Your task to perform on an android device: show emergency info Image 0: 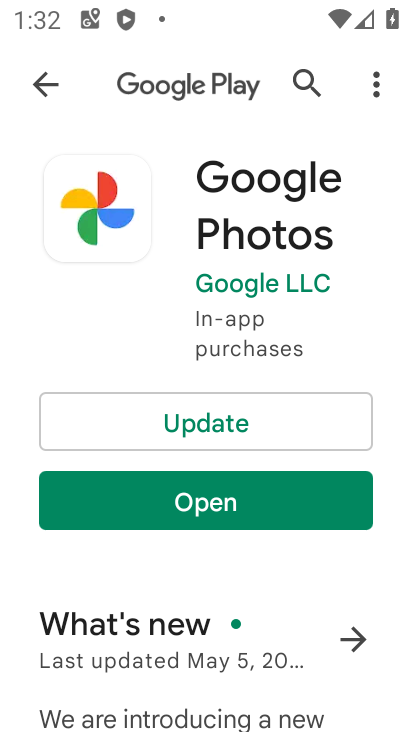
Step 0: press home button
Your task to perform on an android device: show emergency info Image 1: 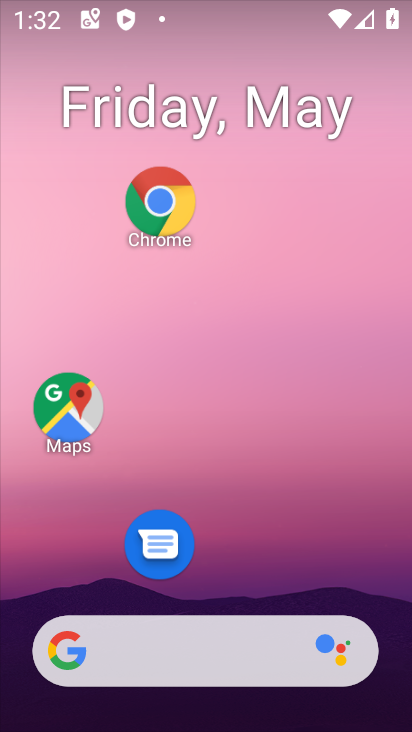
Step 1: drag from (286, 561) to (235, 268)
Your task to perform on an android device: show emergency info Image 2: 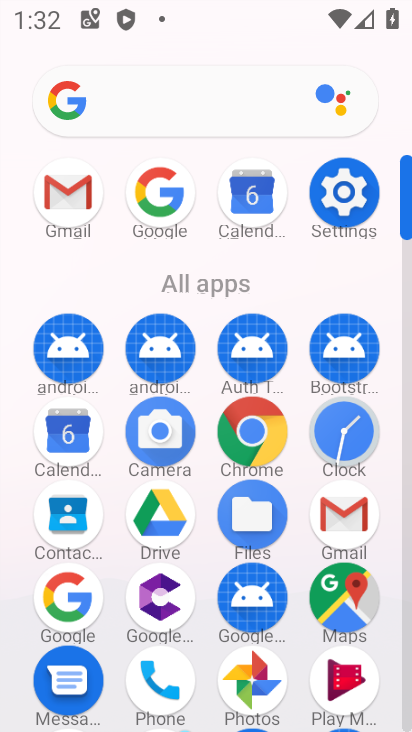
Step 2: click (337, 201)
Your task to perform on an android device: show emergency info Image 3: 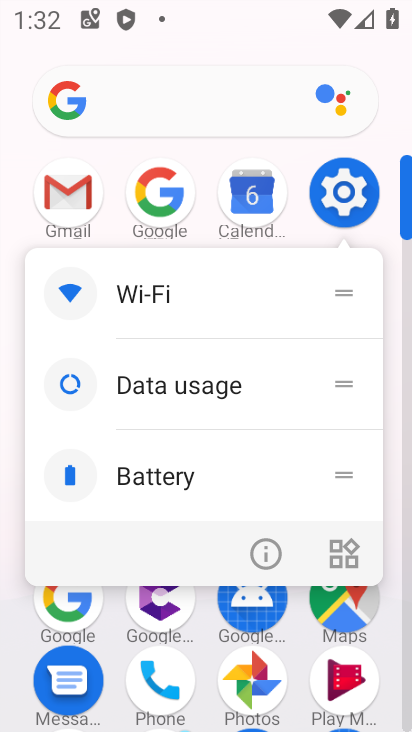
Step 3: click (273, 548)
Your task to perform on an android device: show emergency info Image 4: 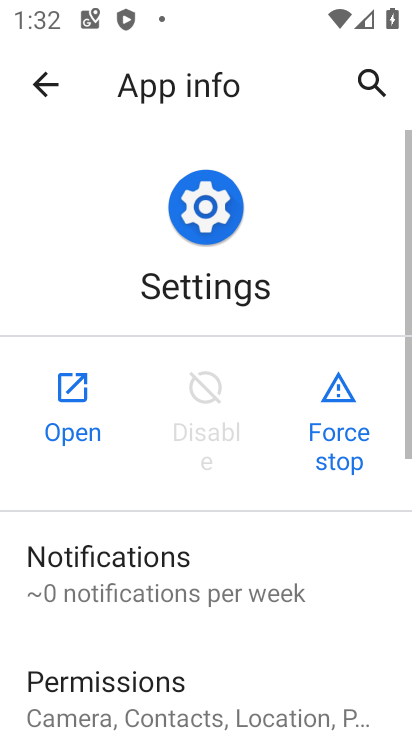
Step 4: click (94, 414)
Your task to perform on an android device: show emergency info Image 5: 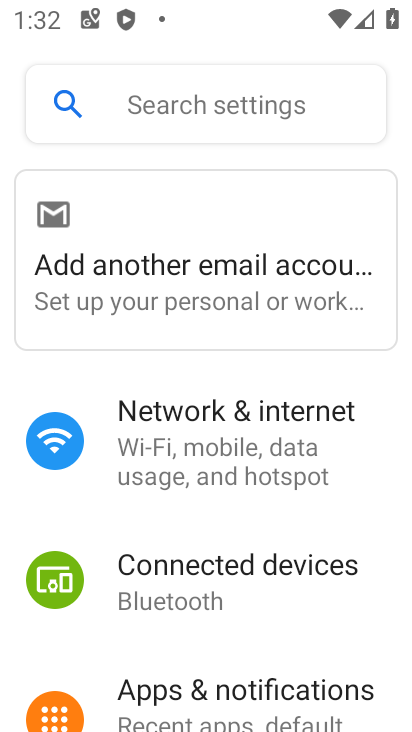
Step 5: drag from (223, 545) to (196, 156)
Your task to perform on an android device: show emergency info Image 6: 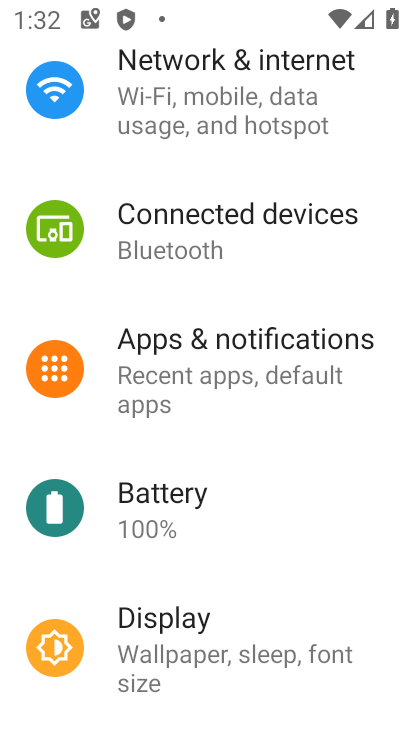
Step 6: drag from (278, 653) to (223, 360)
Your task to perform on an android device: show emergency info Image 7: 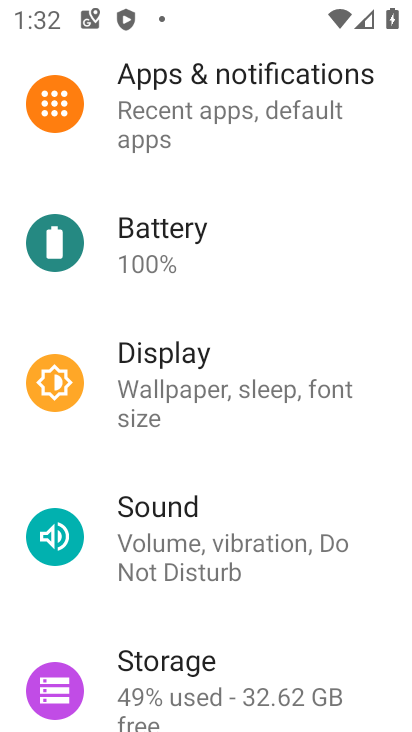
Step 7: drag from (268, 633) to (249, 333)
Your task to perform on an android device: show emergency info Image 8: 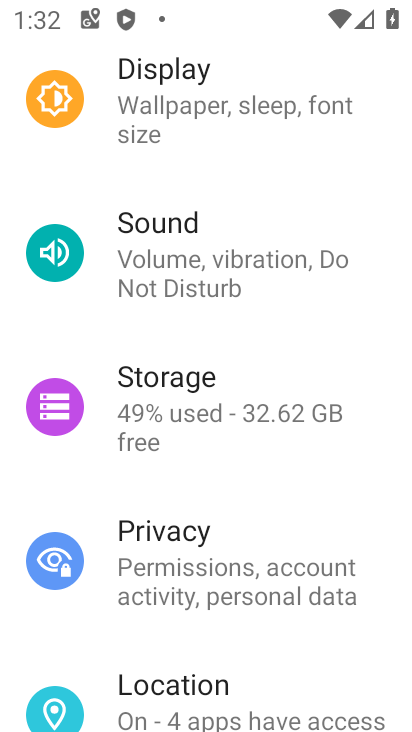
Step 8: drag from (246, 635) to (239, 328)
Your task to perform on an android device: show emergency info Image 9: 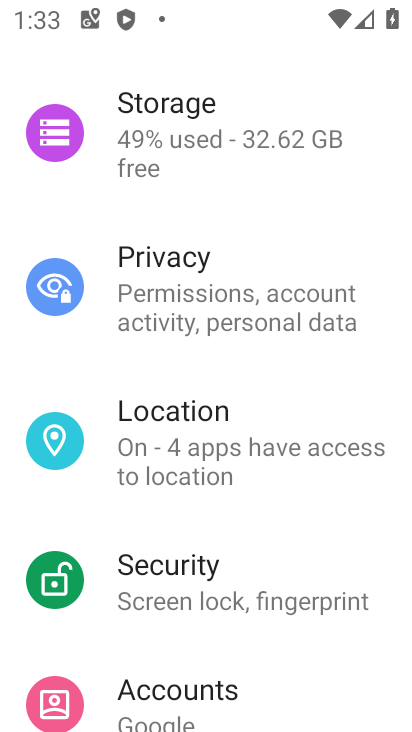
Step 9: drag from (235, 593) to (227, 253)
Your task to perform on an android device: show emergency info Image 10: 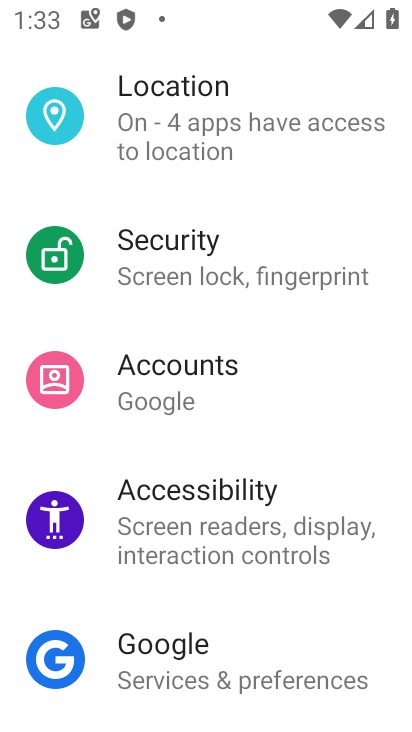
Step 10: drag from (228, 635) to (230, 283)
Your task to perform on an android device: show emergency info Image 11: 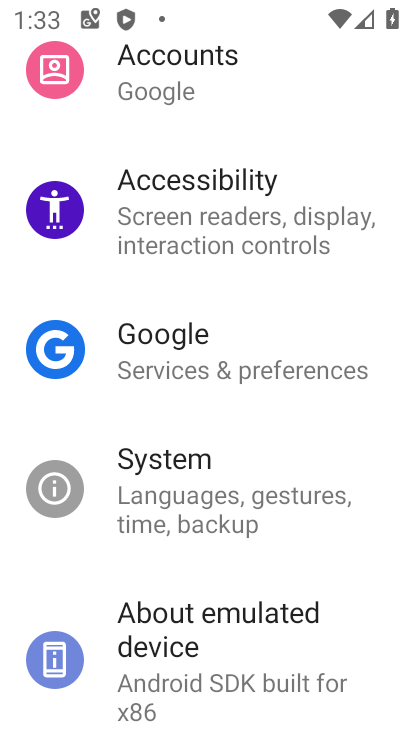
Step 11: drag from (208, 587) to (211, 396)
Your task to perform on an android device: show emergency info Image 12: 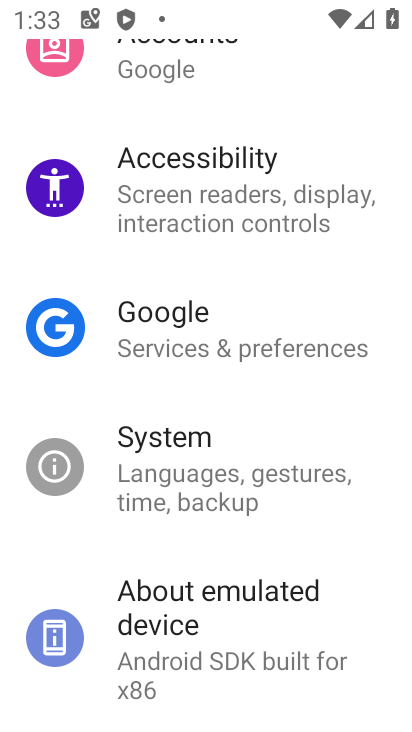
Step 12: click (206, 614)
Your task to perform on an android device: show emergency info Image 13: 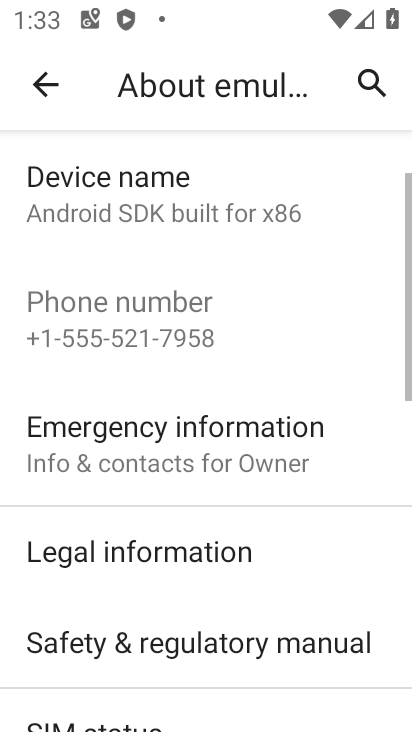
Step 13: click (191, 477)
Your task to perform on an android device: show emergency info Image 14: 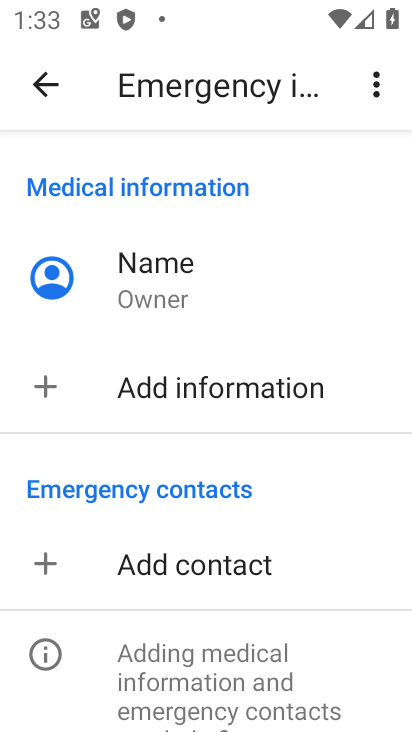
Step 14: task complete